Your task to perform on an android device: find photos in the google photos app Image 0: 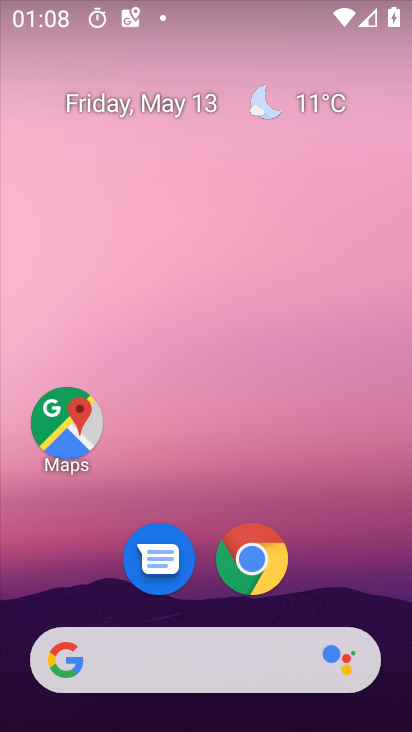
Step 0: drag from (382, 524) to (378, 104)
Your task to perform on an android device: find photos in the google photos app Image 1: 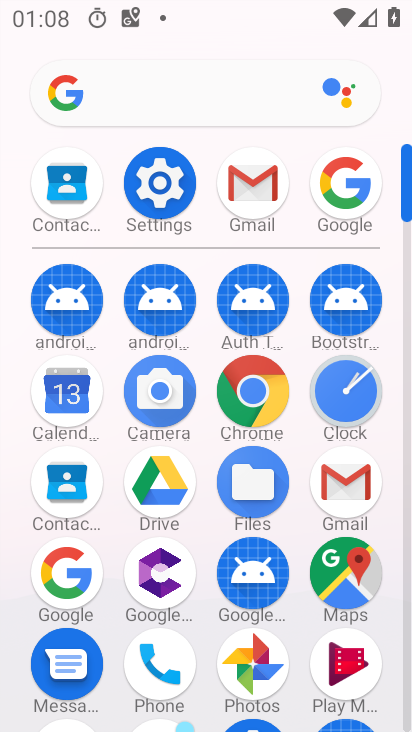
Step 1: click (259, 666)
Your task to perform on an android device: find photos in the google photos app Image 2: 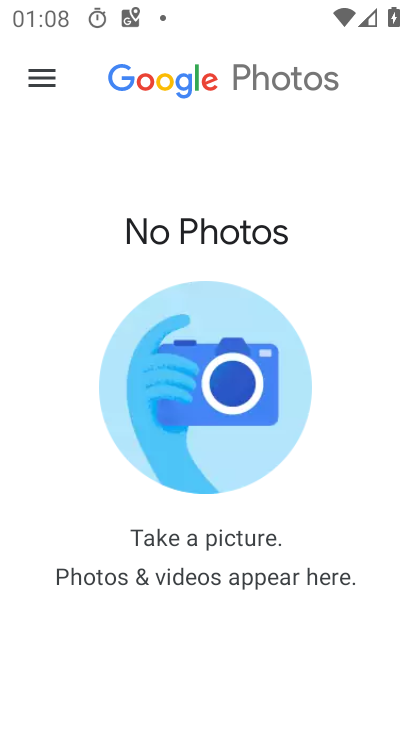
Step 2: click (44, 73)
Your task to perform on an android device: find photos in the google photos app Image 3: 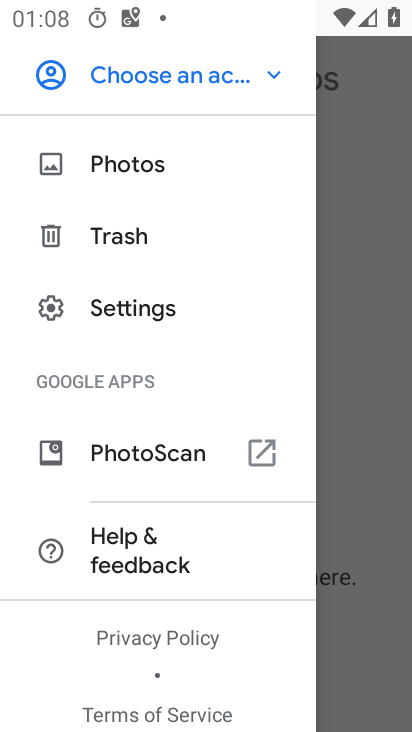
Step 3: click (156, 155)
Your task to perform on an android device: find photos in the google photos app Image 4: 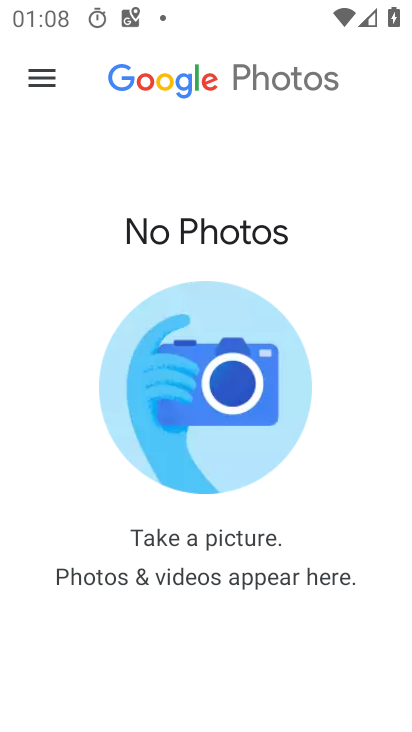
Step 4: task complete